Your task to perform on an android device: turn on priority inbox in the gmail app Image 0: 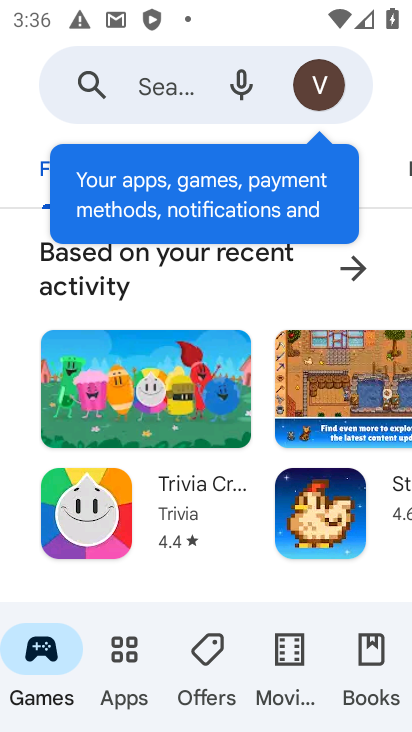
Step 0: press home button
Your task to perform on an android device: turn on priority inbox in the gmail app Image 1: 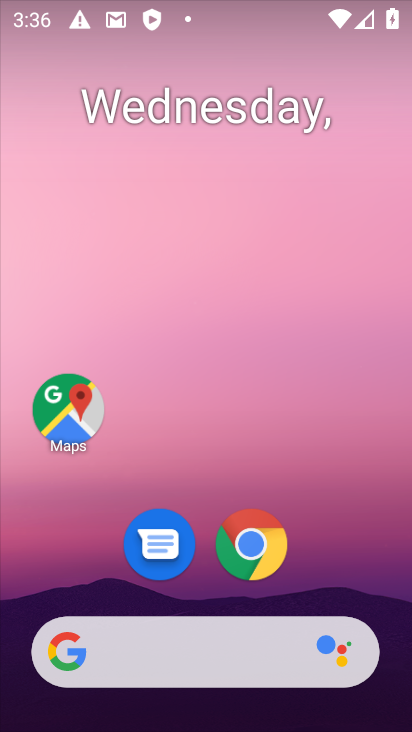
Step 1: drag from (182, 592) to (222, 14)
Your task to perform on an android device: turn on priority inbox in the gmail app Image 2: 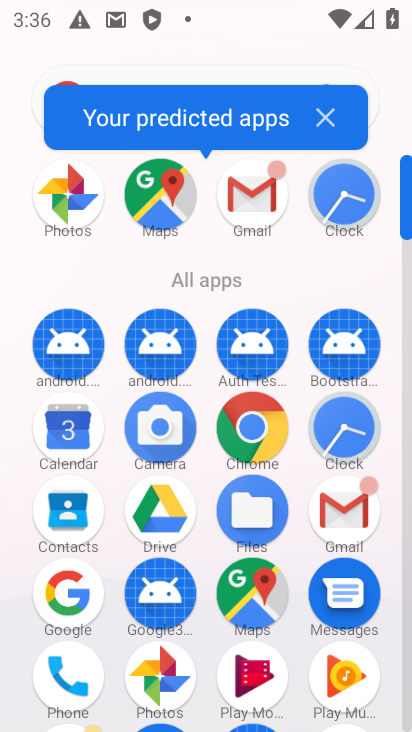
Step 2: click (354, 509)
Your task to perform on an android device: turn on priority inbox in the gmail app Image 3: 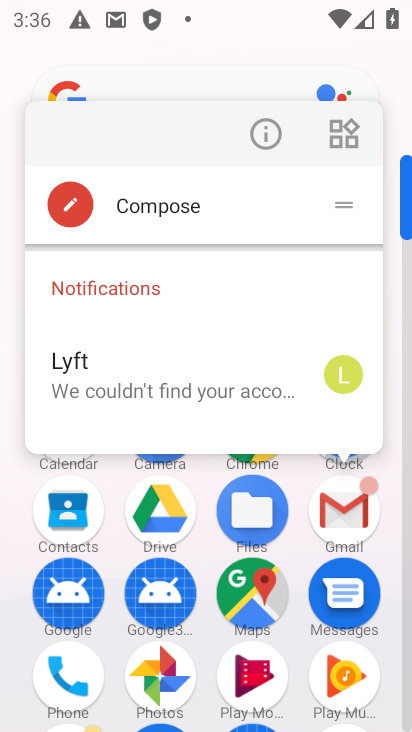
Step 3: click (355, 506)
Your task to perform on an android device: turn on priority inbox in the gmail app Image 4: 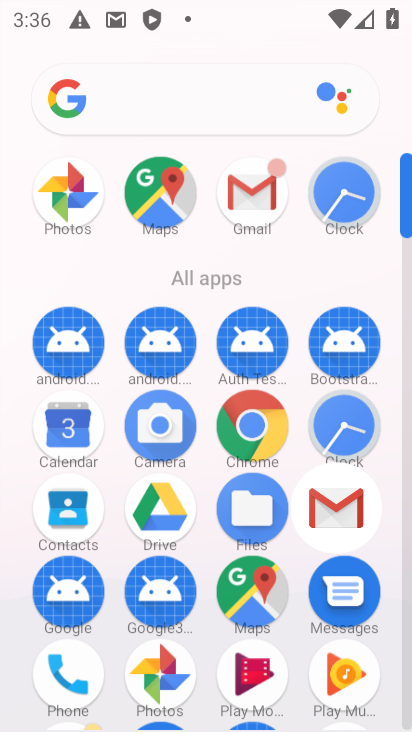
Step 4: click (346, 506)
Your task to perform on an android device: turn on priority inbox in the gmail app Image 5: 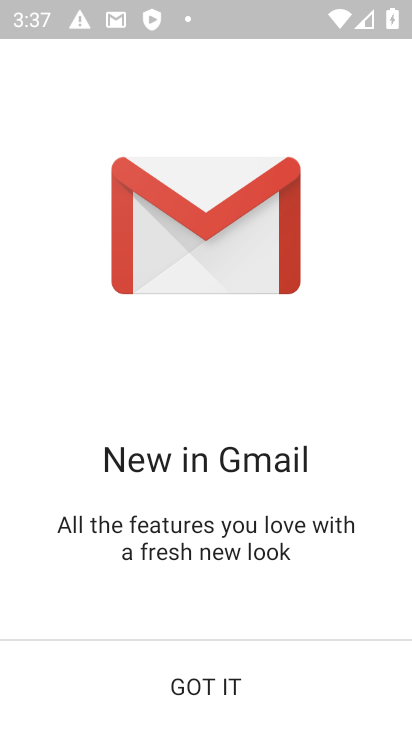
Step 5: click (201, 694)
Your task to perform on an android device: turn on priority inbox in the gmail app Image 6: 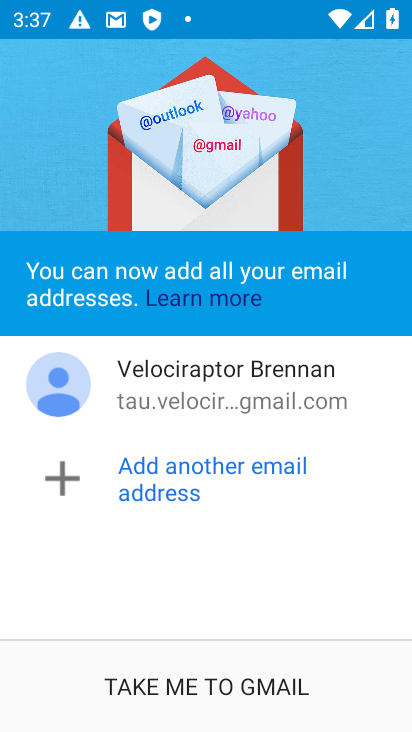
Step 6: click (203, 670)
Your task to perform on an android device: turn on priority inbox in the gmail app Image 7: 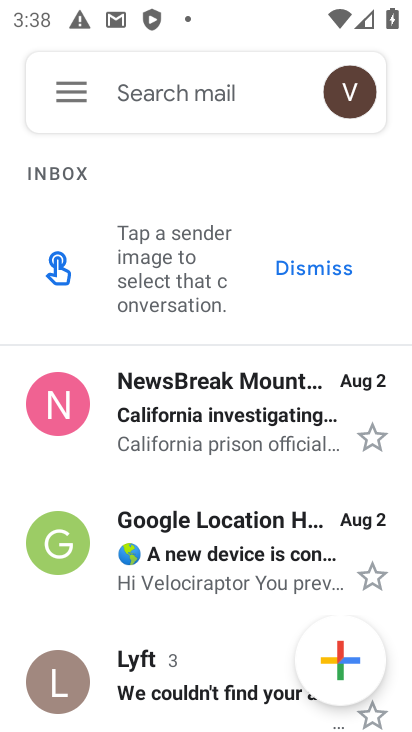
Step 7: click (71, 94)
Your task to perform on an android device: turn on priority inbox in the gmail app Image 8: 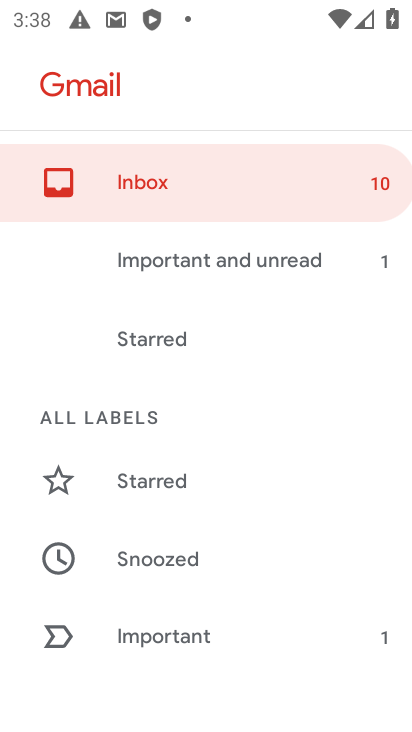
Step 8: drag from (266, 614) to (282, 157)
Your task to perform on an android device: turn on priority inbox in the gmail app Image 9: 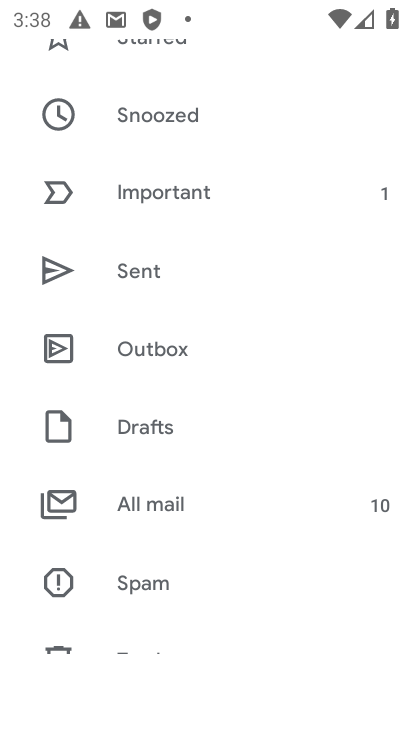
Step 9: drag from (295, 586) to (292, 165)
Your task to perform on an android device: turn on priority inbox in the gmail app Image 10: 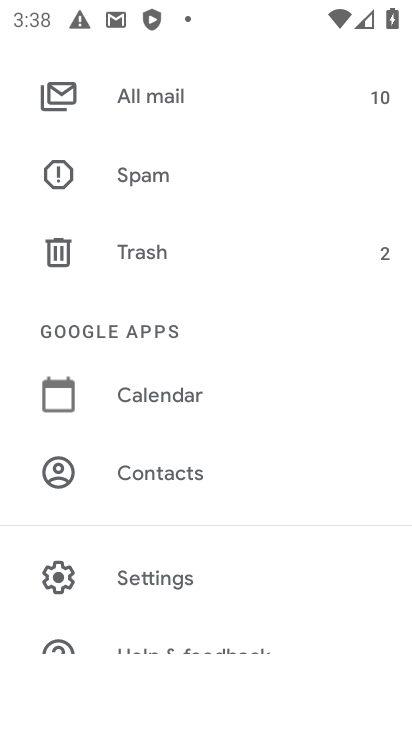
Step 10: click (152, 572)
Your task to perform on an android device: turn on priority inbox in the gmail app Image 11: 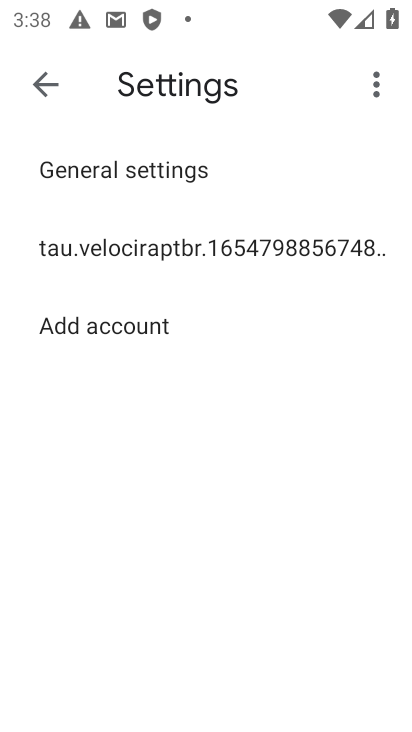
Step 11: click (214, 256)
Your task to perform on an android device: turn on priority inbox in the gmail app Image 12: 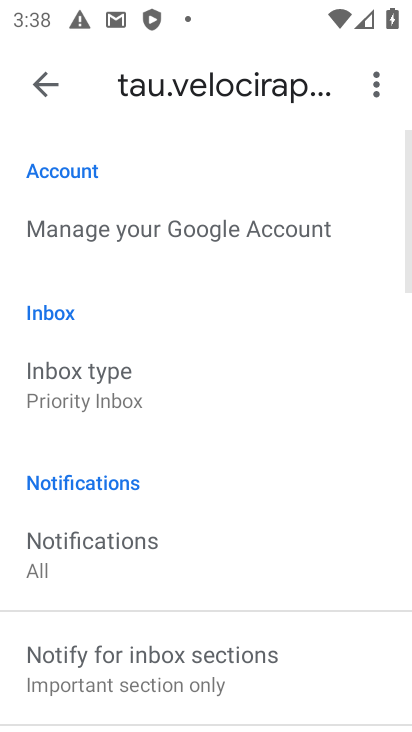
Step 12: drag from (201, 584) to (209, 329)
Your task to perform on an android device: turn on priority inbox in the gmail app Image 13: 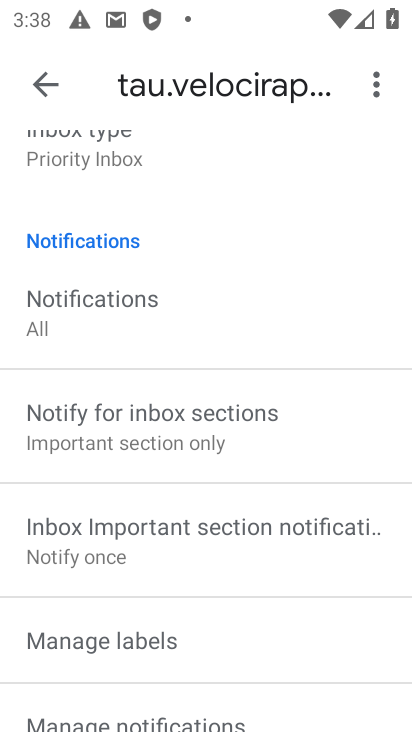
Step 13: click (110, 154)
Your task to perform on an android device: turn on priority inbox in the gmail app Image 14: 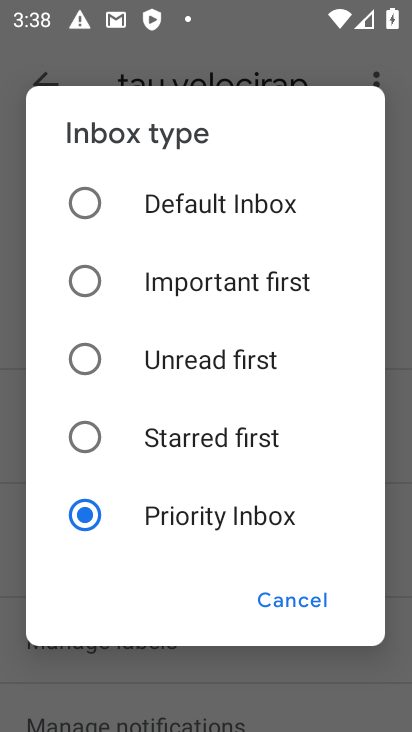
Step 14: click (156, 523)
Your task to perform on an android device: turn on priority inbox in the gmail app Image 15: 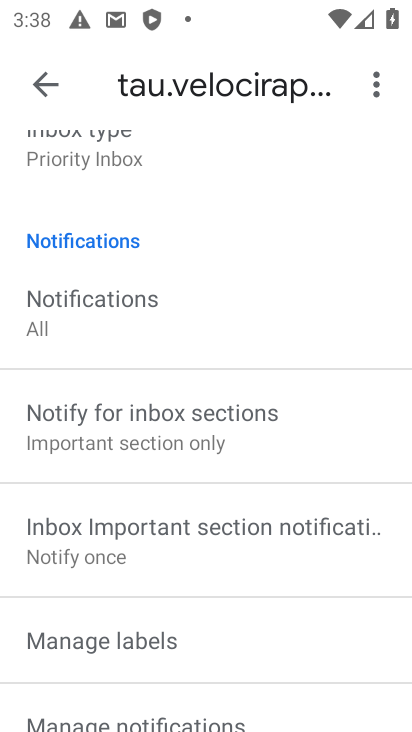
Step 15: task complete